Your task to perform on an android device: delete a single message in the gmail app Image 0: 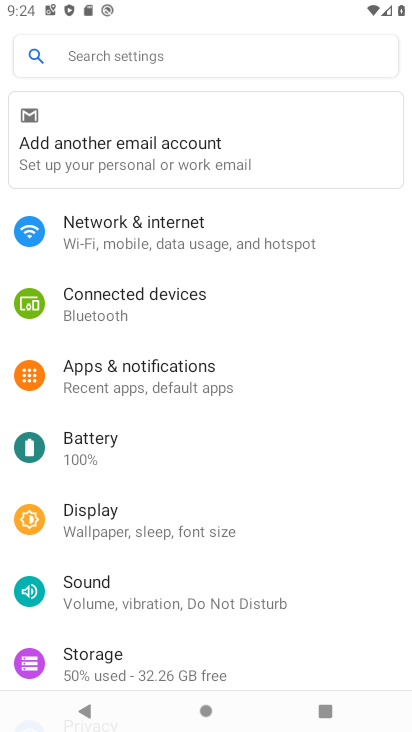
Step 0: press home button
Your task to perform on an android device: delete a single message in the gmail app Image 1: 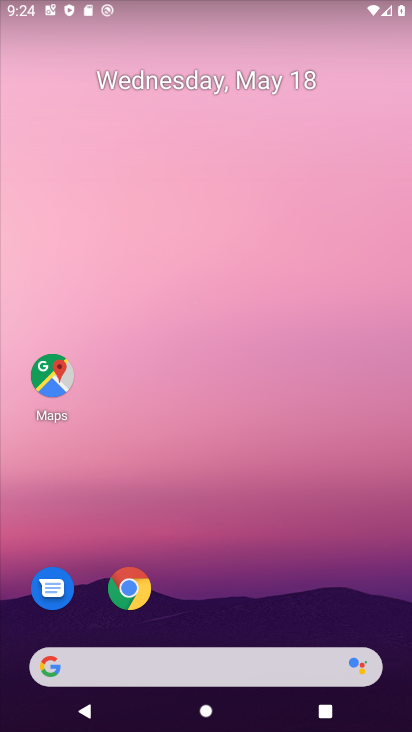
Step 1: drag from (272, 691) to (343, 106)
Your task to perform on an android device: delete a single message in the gmail app Image 2: 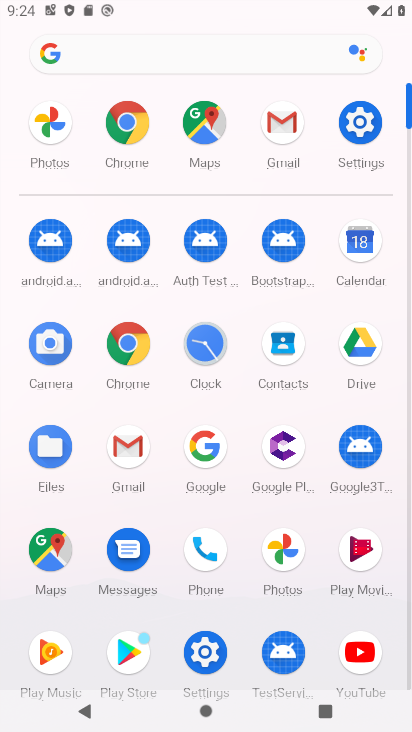
Step 2: click (133, 461)
Your task to perform on an android device: delete a single message in the gmail app Image 3: 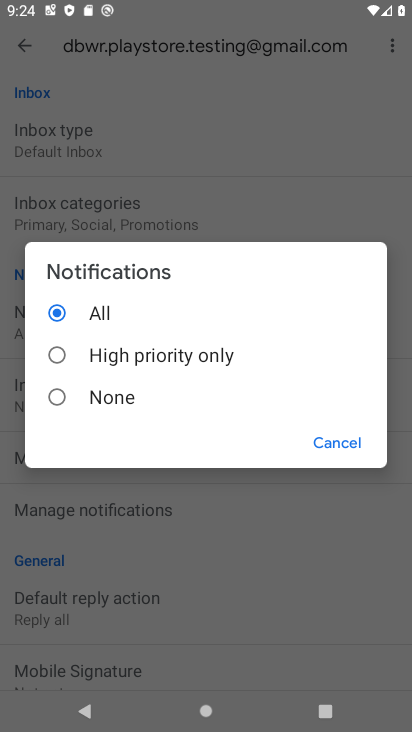
Step 3: click (334, 442)
Your task to perform on an android device: delete a single message in the gmail app Image 4: 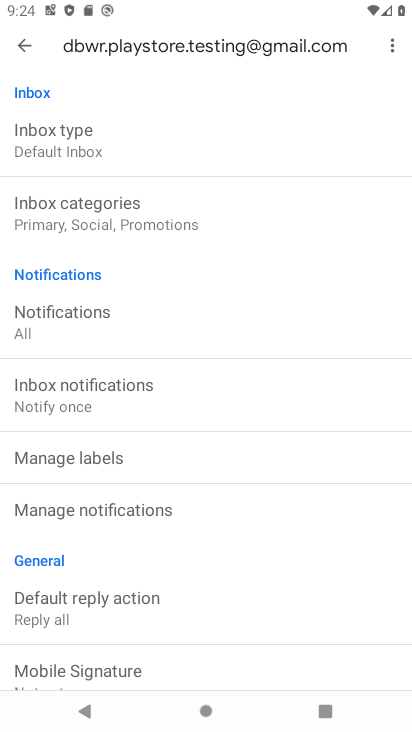
Step 4: click (38, 42)
Your task to perform on an android device: delete a single message in the gmail app Image 5: 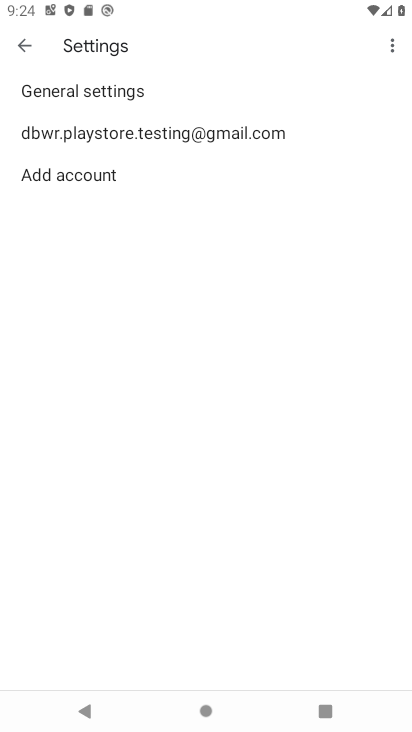
Step 5: click (38, 42)
Your task to perform on an android device: delete a single message in the gmail app Image 6: 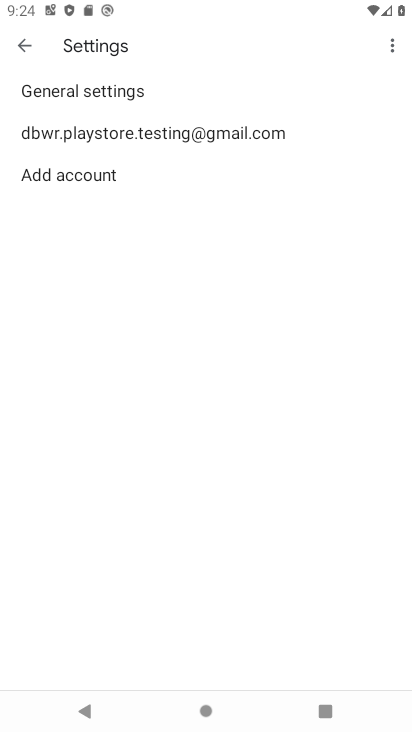
Step 6: click (38, 42)
Your task to perform on an android device: delete a single message in the gmail app Image 7: 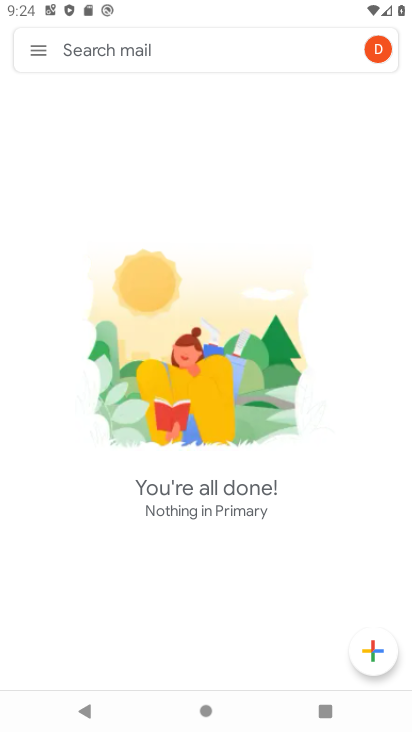
Step 7: task complete